Your task to perform on an android device: Show me productivity apps on the Play Store Image 0: 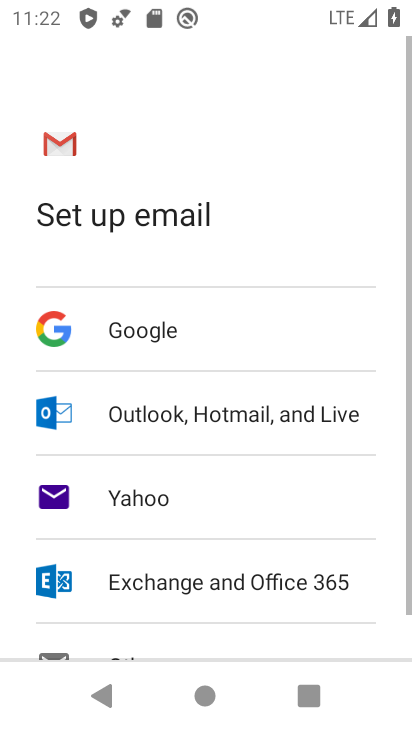
Step 0: press home button
Your task to perform on an android device: Show me productivity apps on the Play Store Image 1: 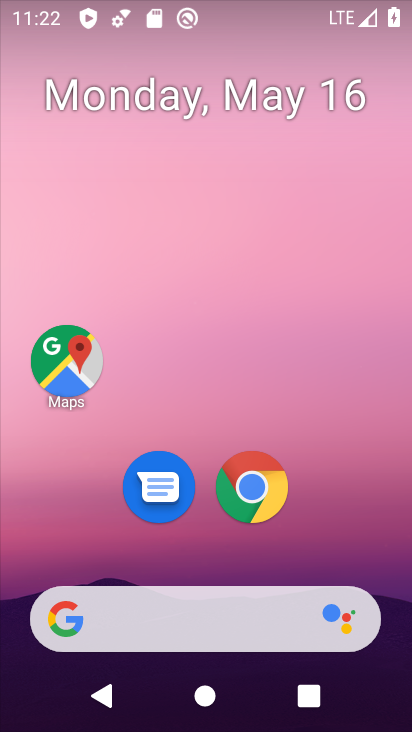
Step 1: drag from (18, 353) to (233, 123)
Your task to perform on an android device: Show me productivity apps on the Play Store Image 2: 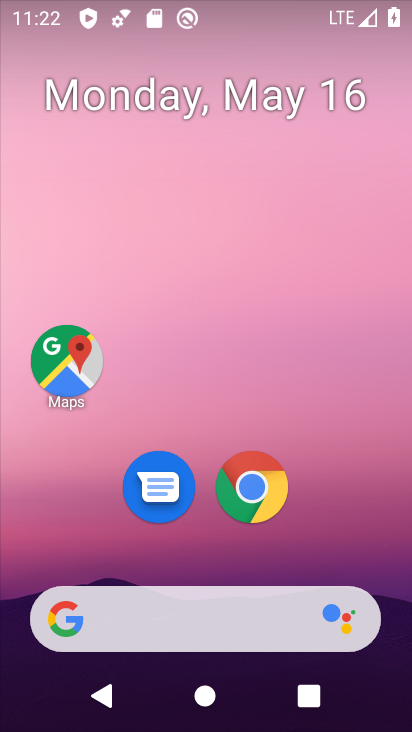
Step 2: drag from (53, 627) to (203, 270)
Your task to perform on an android device: Show me productivity apps on the Play Store Image 3: 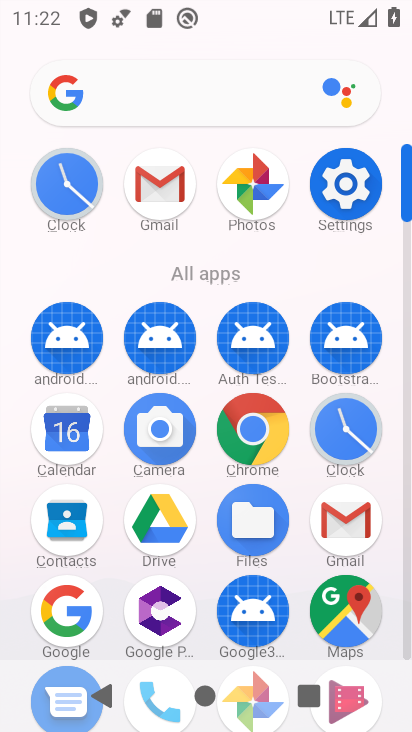
Step 3: drag from (90, 731) to (211, 232)
Your task to perform on an android device: Show me productivity apps on the Play Store Image 4: 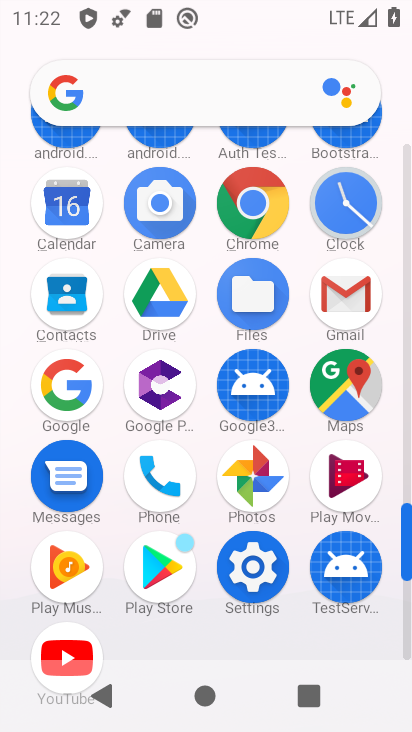
Step 4: click (146, 573)
Your task to perform on an android device: Show me productivity apps on the Play Store Image 5: 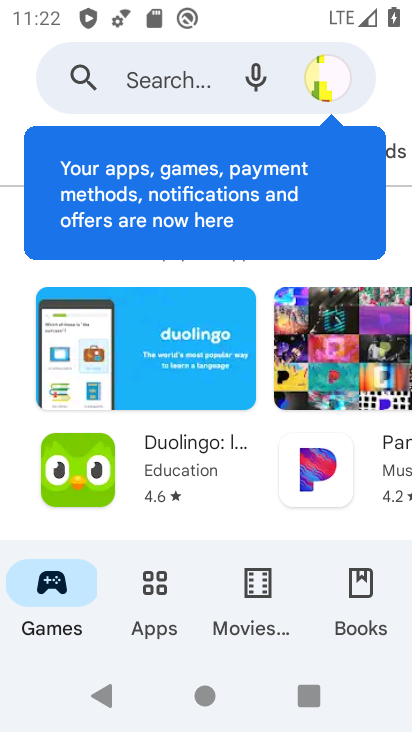
Step 5: click (148, 586)
Your task to perform on an android device: Show me productivity apps on the Play Store Image 6: 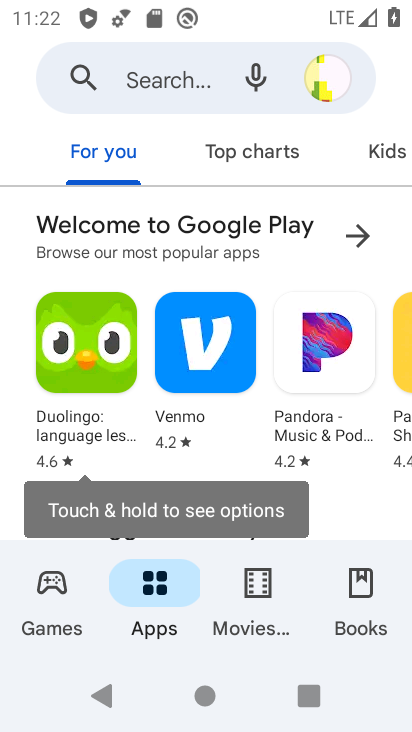
Step 6: task complete